Your task to perform on an android device: turn off javascript in the chrome app Image 0: 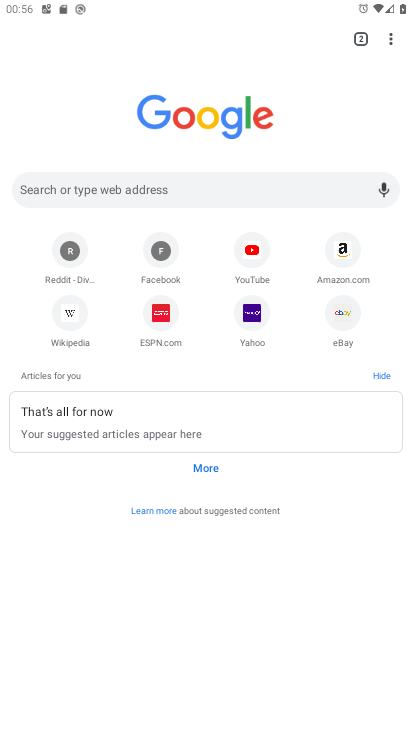
Step 0: press home button
Your task to perform on an android device: turn off javascript in the chrome app Image 1: 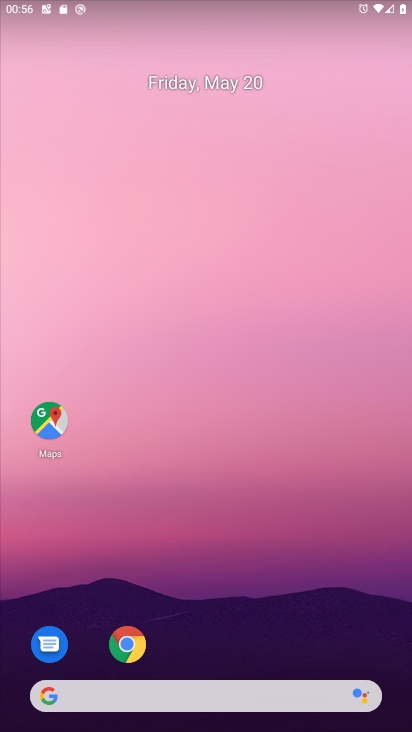
Step 1: drag from (162, 677) to (212, 369)
Your task to perform on an android device: turn off javascript in the chrome app Image 2: 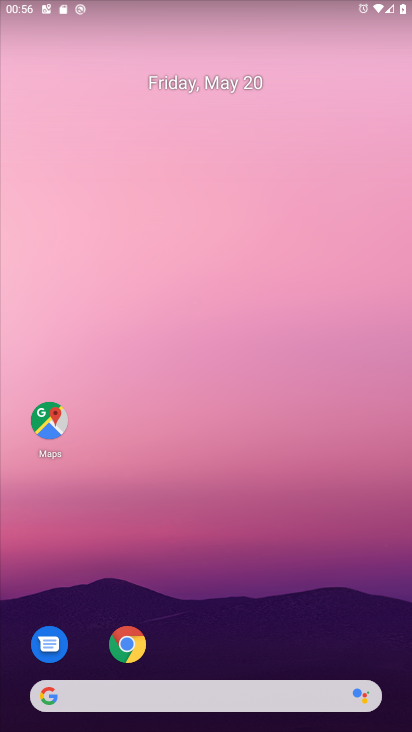
Step 2: click (121, 650)
Your task to perform on an android device: turn off javascript in the chrome app Image 3: 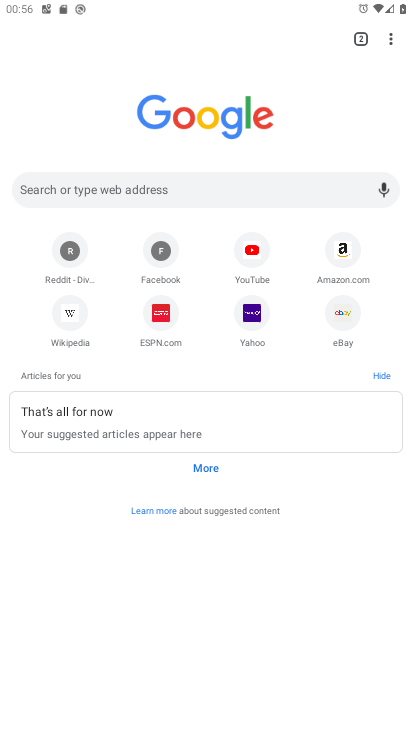
Step 3: click (392, 38)
Your task to perform on an android device: turn off javascript in the chrome app Image 4: 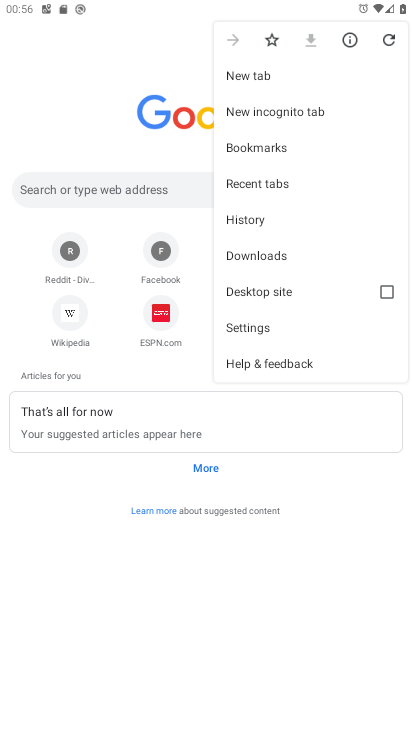
Step 4: click (244, 320)
Your task to perform on an android device: turn off javascript in the chrome app Image 5: 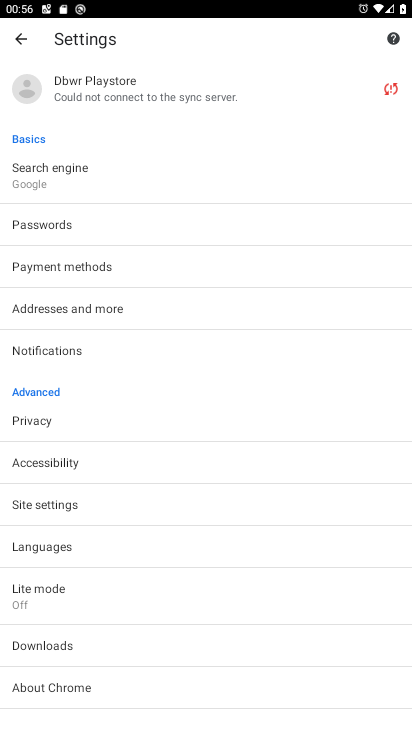
Step 5: drag from (45, 677) to (47, 360)
Your task to perform on an android device: turn off javascript in the chrome app Image 6: 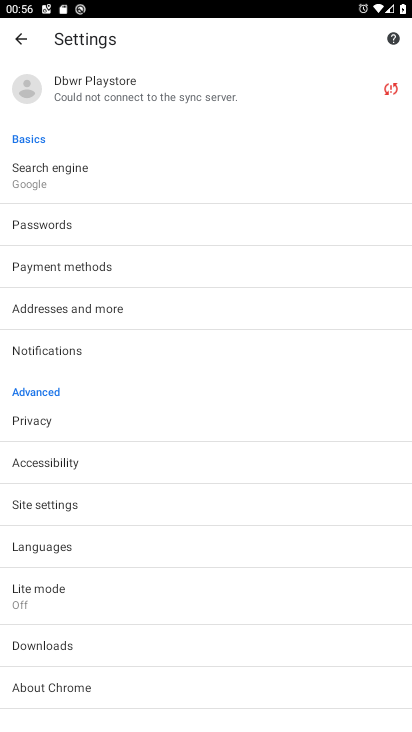
Step 6: drag from (50, 677) to (72, 446)
Your task to perform on an android device: turn off javascript in the chrome app Image 7: 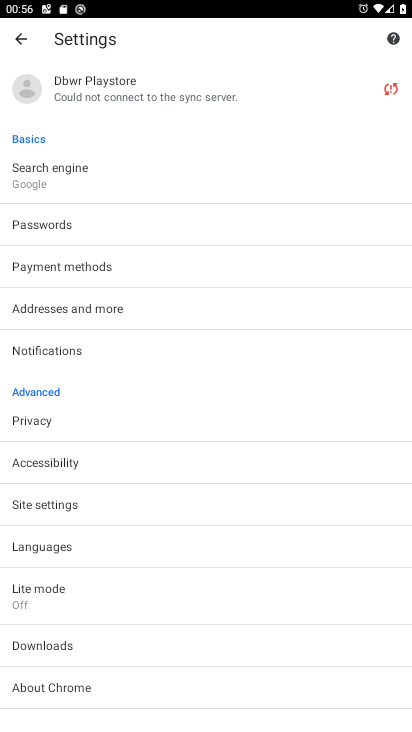
Step 7: drag from (35, 699) to (57, 410)
Your task to perform on an android device: turn off javascript in the chrome app Image 8: 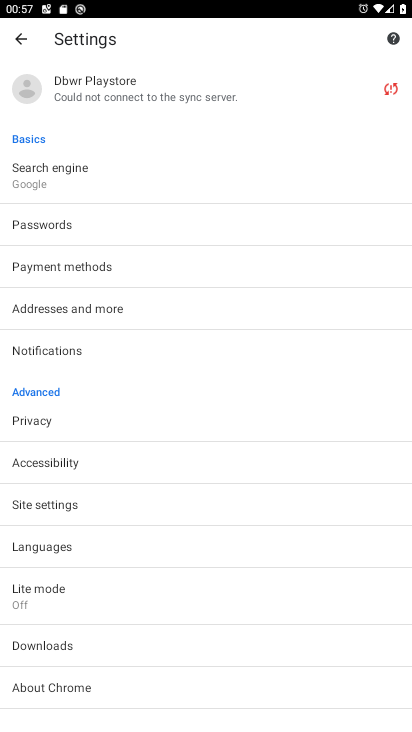
Step 8: click (49, 505)
Your task to perform on an android device: turn off javascript in the chrome app Image 9: 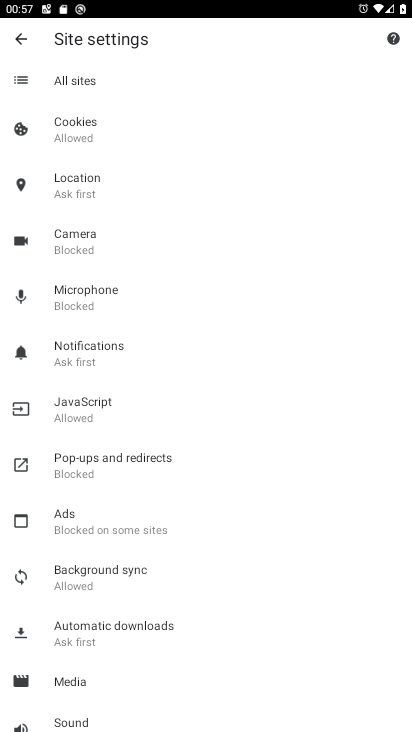
Step 9: click (96, 414)
Your task to perform on an android device: turn off javascript in the chrome app Image 10: 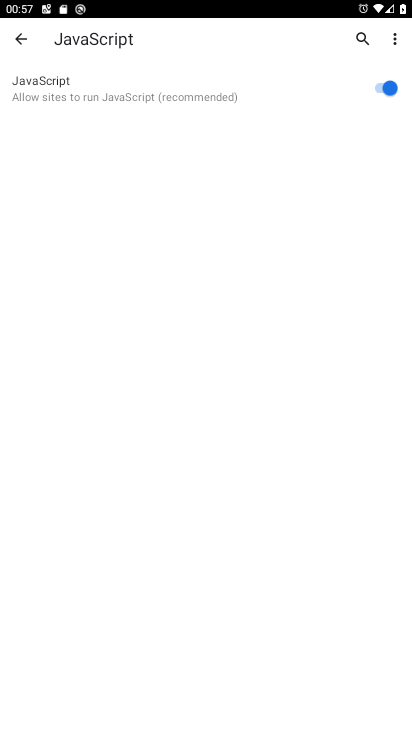
Step 10: click (386, 89)
Your task to perform on an android device: turn off javascript in the chrome app Image 11: 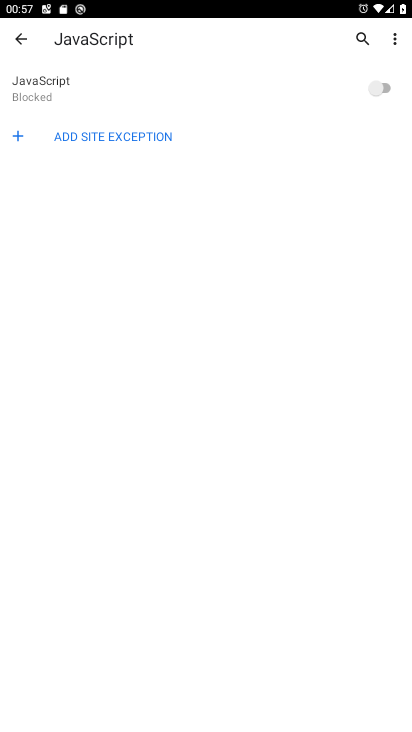
Step 11: task complete